Your task to perform on an android device: turn off improve location accuracy Image 0: 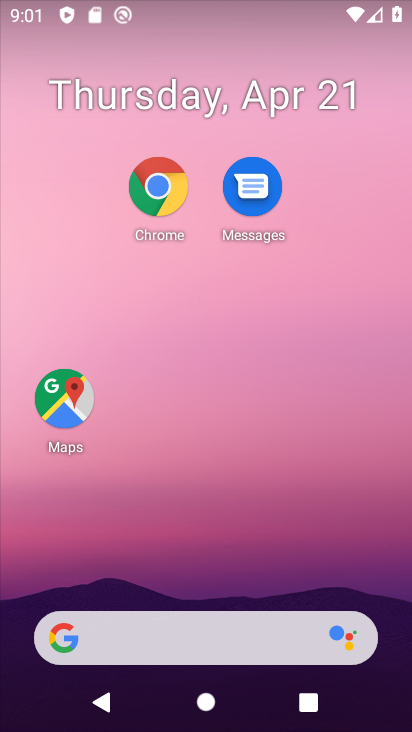
Step 0: drag from (210, 528) to (228, 17)
Your task to perform on an android device: turn off improve location accuracy Image 1: 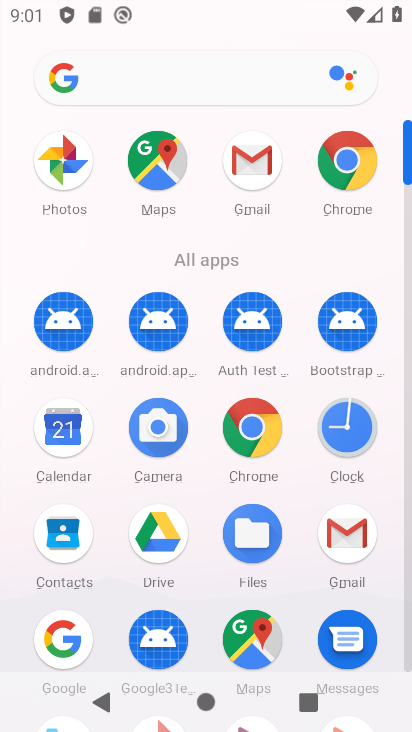
Step 1: drag from (210, 628) to (225, 124)
Your task to perform on an android device: turn off improve location accuracy Image 2: 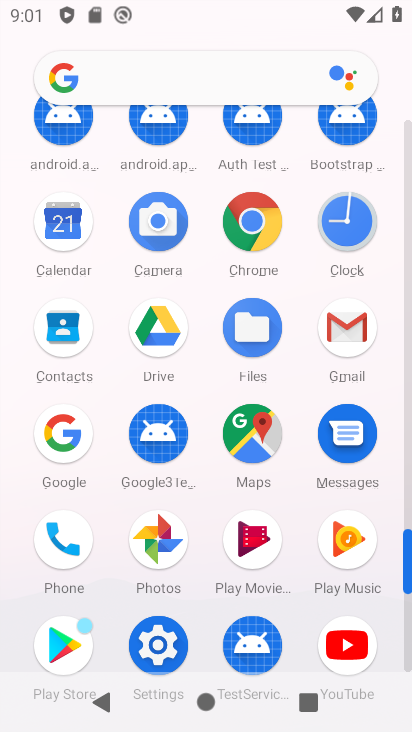
Step 2: click (160, 655)
Your task to perform on an android device: turn off improve location accuracy Image 3: 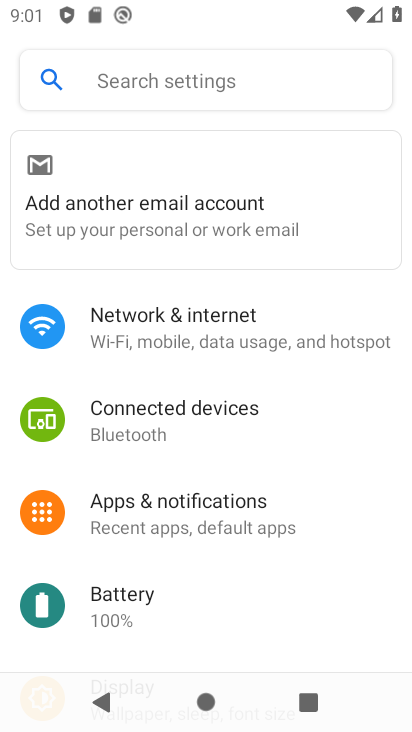
Step 3: drag from (183, 538) to (177, 100)
Your task to perform on an android device: turn off improve location accuracy Image 4: 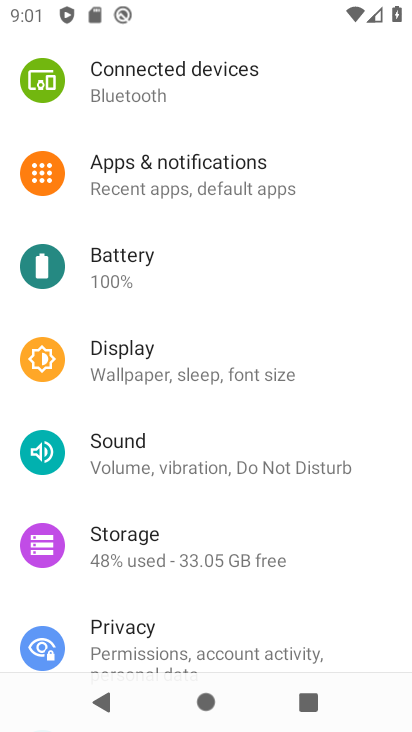
Step 4: drag from (214, 618) to (249, 177)
Your task to perform on an android device: turn off improve location accuracy Image 5: 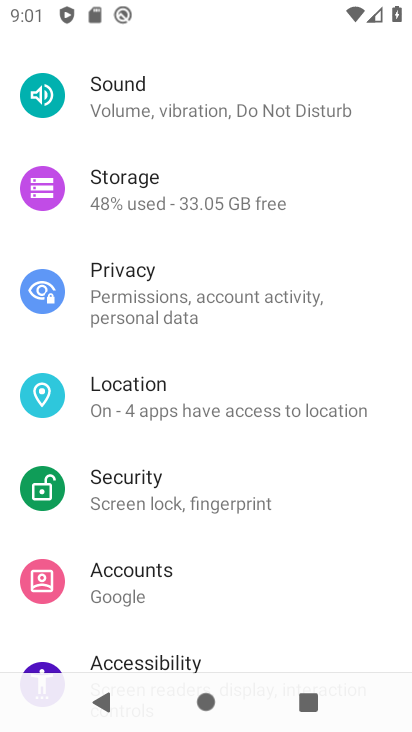
Step 5: click (222, 395)
Your task to perform on an android device: turn off improve location accuracy Image 6: 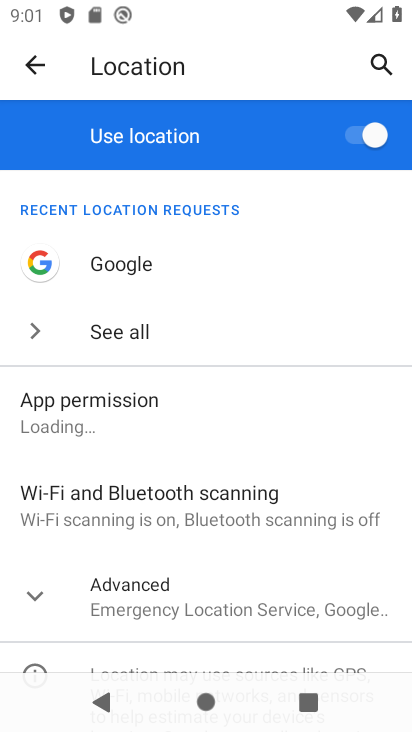
Step 6: click (203, 602)
Your task to perform on an android device: turn off improve location accuracy Image 7: 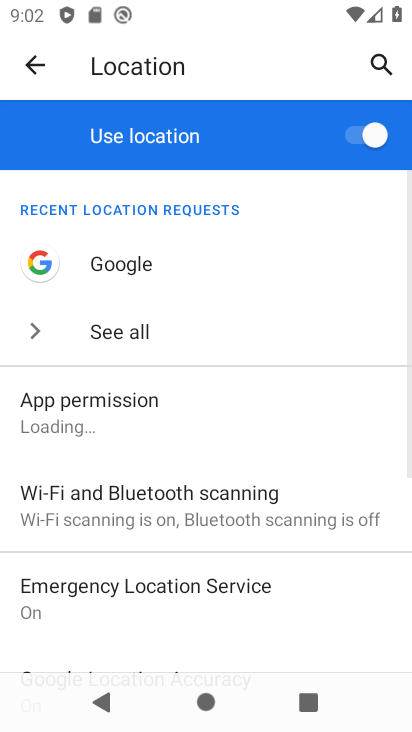
Step 7: drag from (205, 587) to (267, 220)
Your task to perform on an android device: turn off improve location accuracy Image 8: 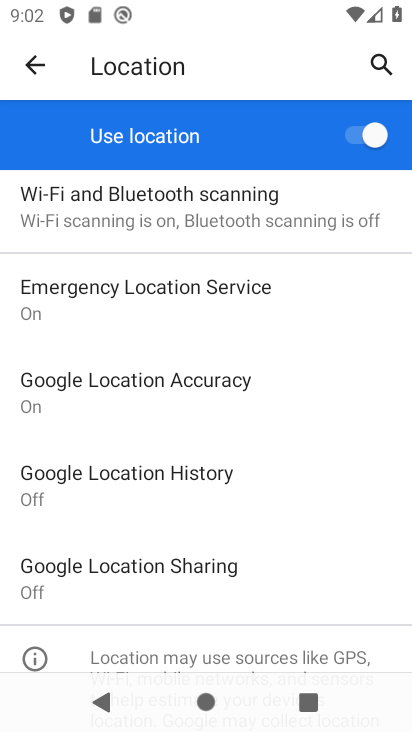
Step 8: click (207, 389)
Your task to perform on an android device: turn off improve location accuracy Image 9: 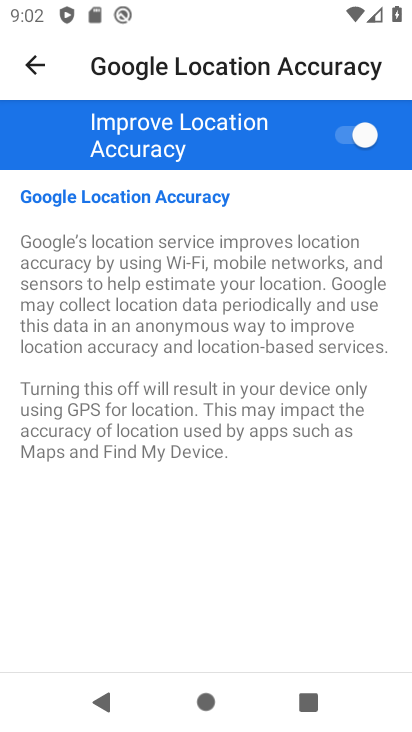
Step 9: click (350, 138)
Your task to perform on an android device: turn off improve location accuracy Image 10: 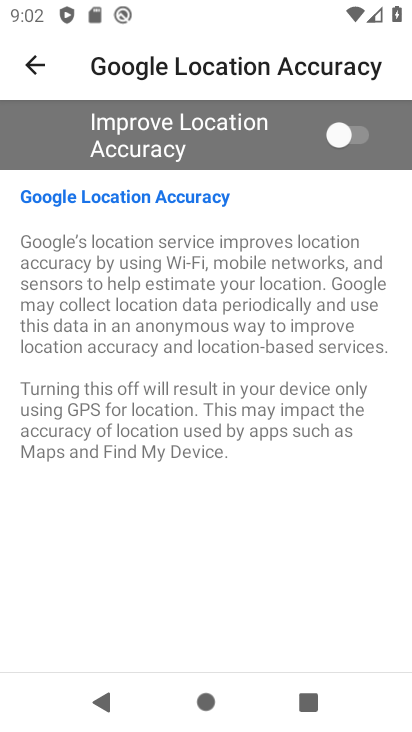
Step 10: task complete